Your task to perform on an android device: open wifi settings Image 0: 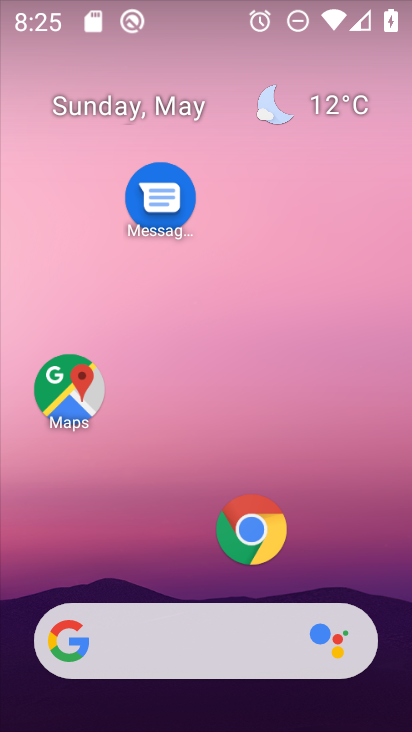
Step 0: press home button
Your task to perform on an android device: open wifi settings Image 1: 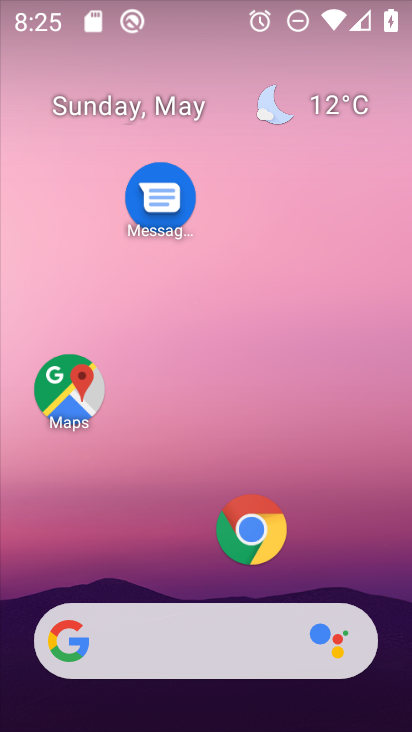
Step 1: drag from (200, 578) to (279, 62)
Your task to perform on an android device: open wifi settings Image 2: 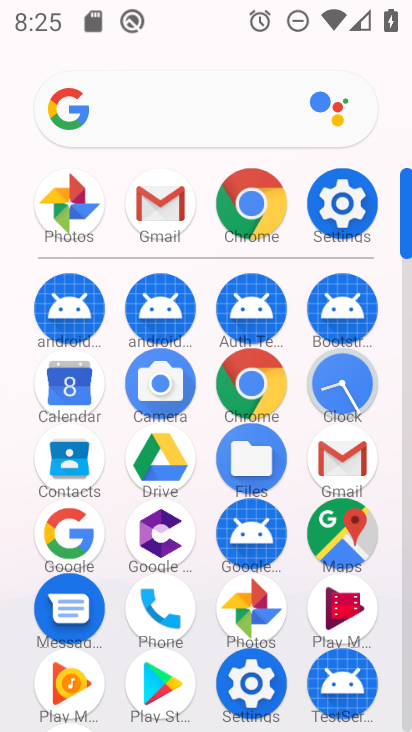
Step 2: click (341, 200)
Your task to perform on an android device: open wifi settings Image 3: 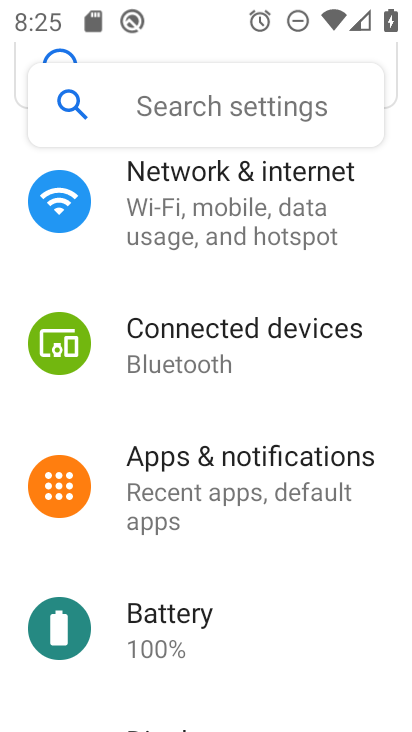
Step 3: click (218, 211)
Your task to perform on an android device: open wifi settings Image 4: 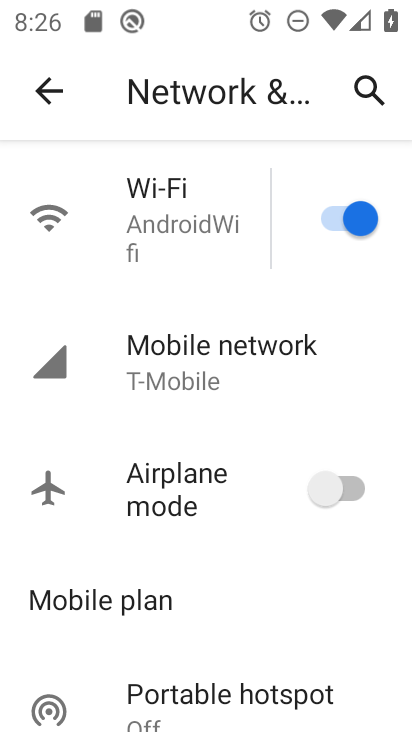
Step 4: click (193, 190)
Your task to perform on an android device: open wifi settings Image 5: 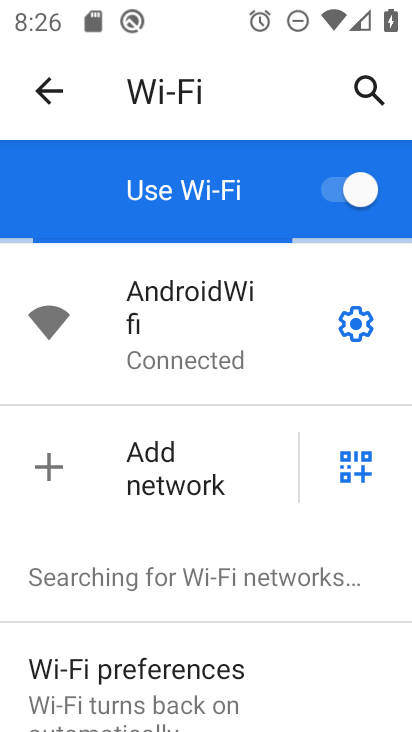
Step 5: task complete